Your task to perform on an android device: Go to Google Image 0: 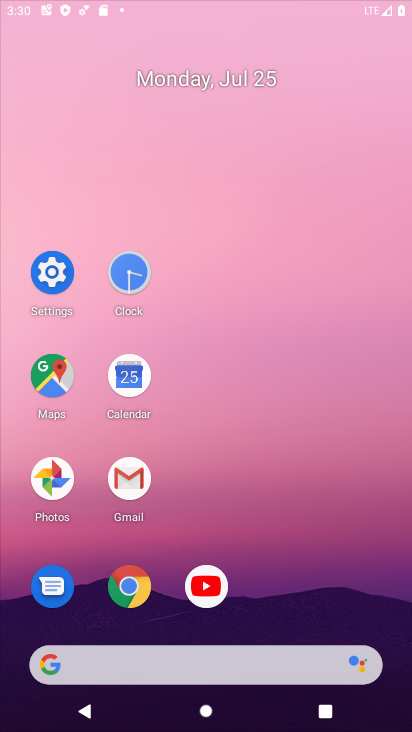
Step 0: click (318, 593)
Your task to perform on an android device: Go to Google Image 1: 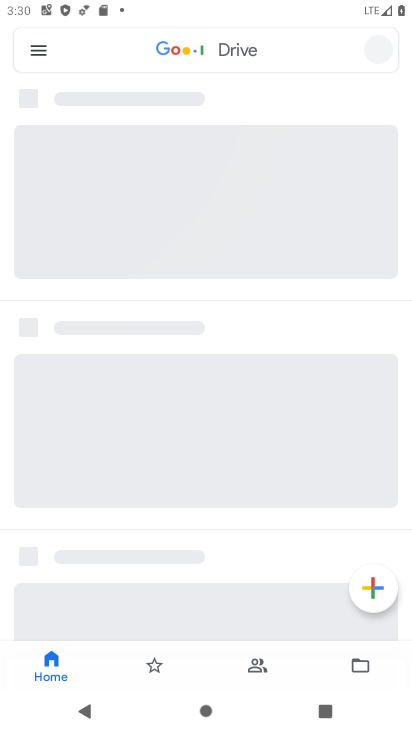
Step 1: press home button
Your task to perform on an android device: Go to Google Image 2: 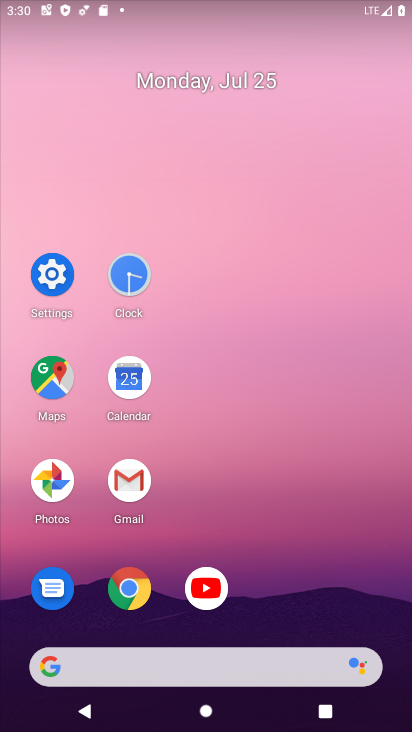
Step 2: click (45, 667)
Your task to perform on an android device: Go to Google Image 3: 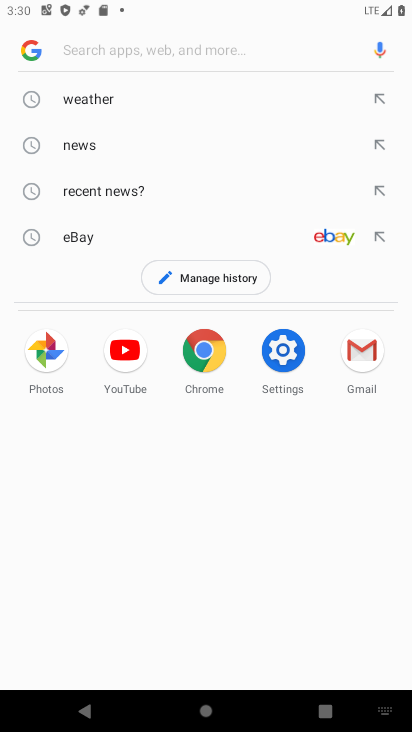
Step 3: click (28, 47)
Your task to perform on an android device: Go to Google Image 4: 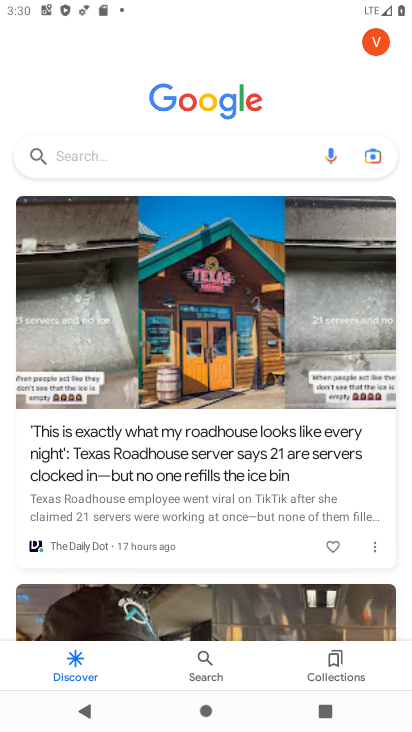
Step 4: task complete